Your task to perform on an android device: What's on my calendar today? Image 0: 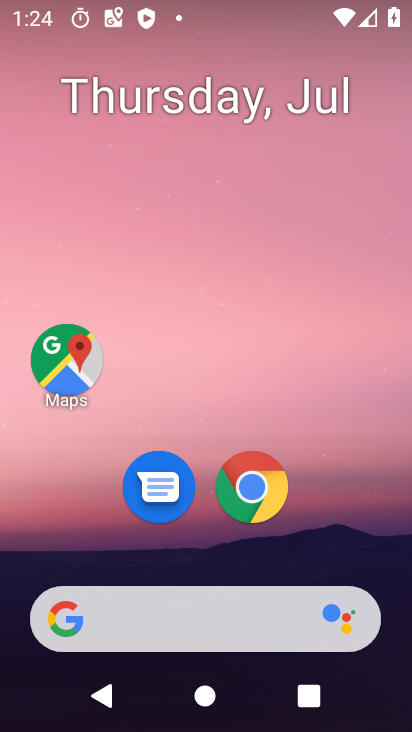
Step 0: drag from (276, 618) to (303, 69)
Your task to perform on an android device: What's on my calendar today? Image 1: 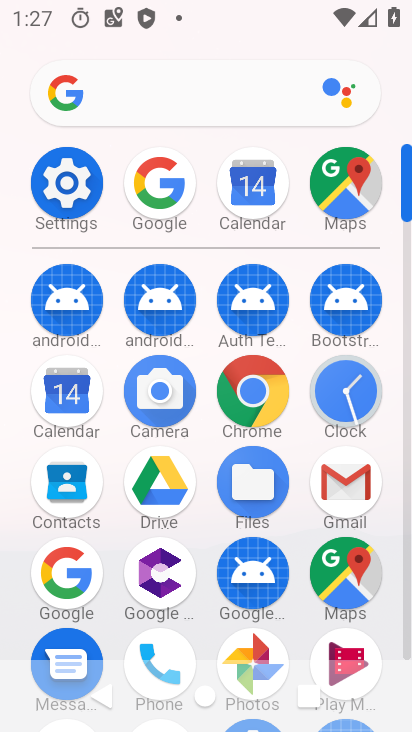
Step 1: click (62, 375)
Your task to perform on an android device: What's on my calendar today? Image 2: 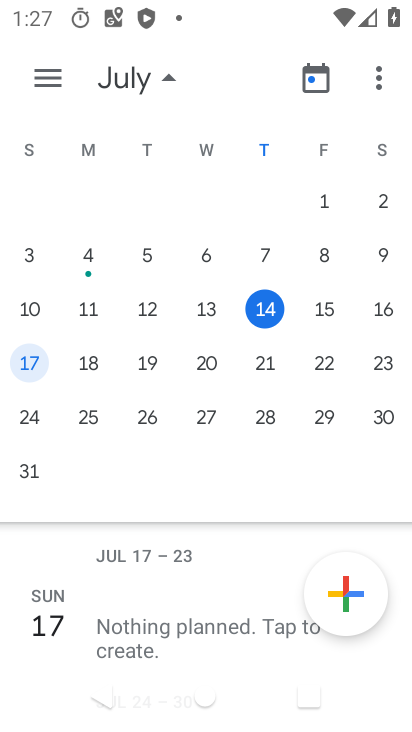
Step 2: click (263, 318)
Your task to perform on an android device: What's on my calendar today? Image 3: 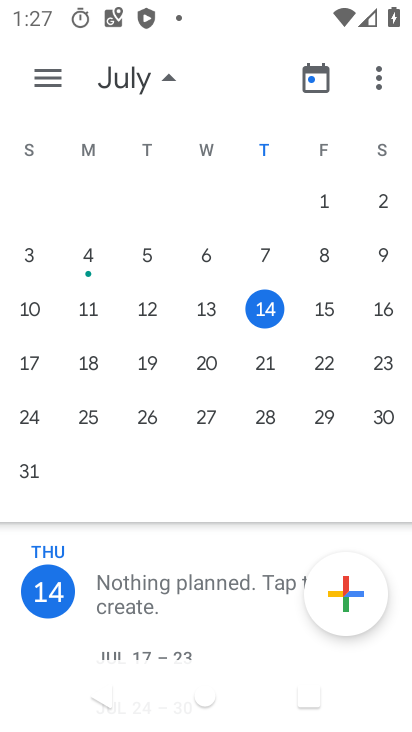
Step 3: task complete